Your task to perform on an android device: Show me recent news Image 0: 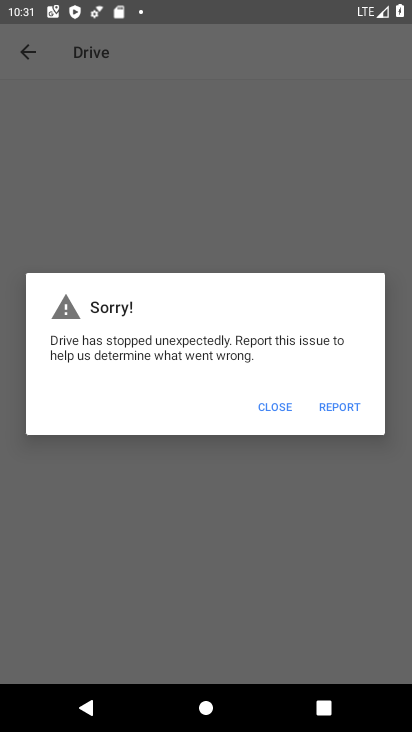
Step 0: press home button
Your task to perform on an android device: Show me recent news Image 1: 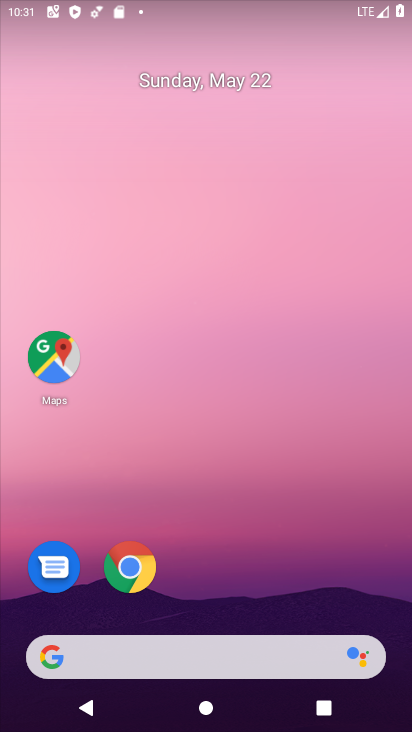
Step 1: task complete